Your task to perform on an android device: Show me popular videos on Youtube Image 0: 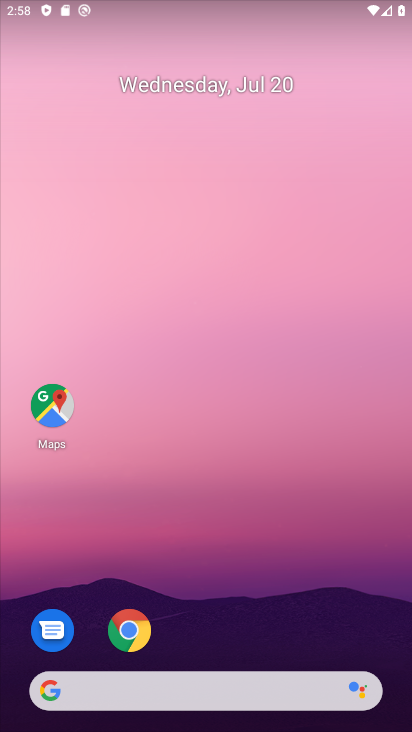
Step 0: press home button
Your task to perform on an android device: Show me popular videos on Youtube Image 1: 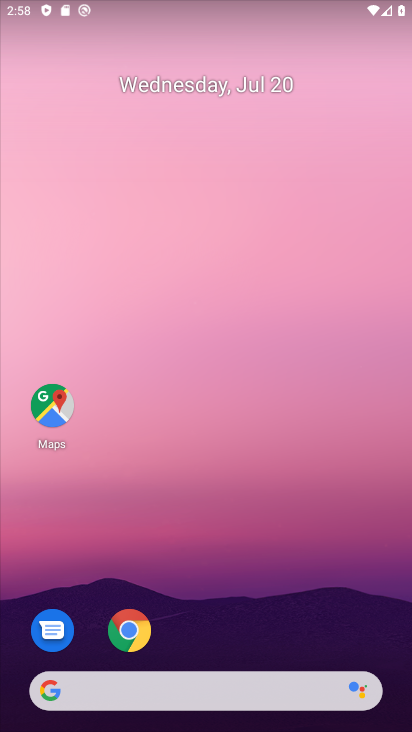
Step 1: drag from (244, 641) to (184, 102)
Your task to perform on an android device: Show me popular videos on Youtube Image 2: 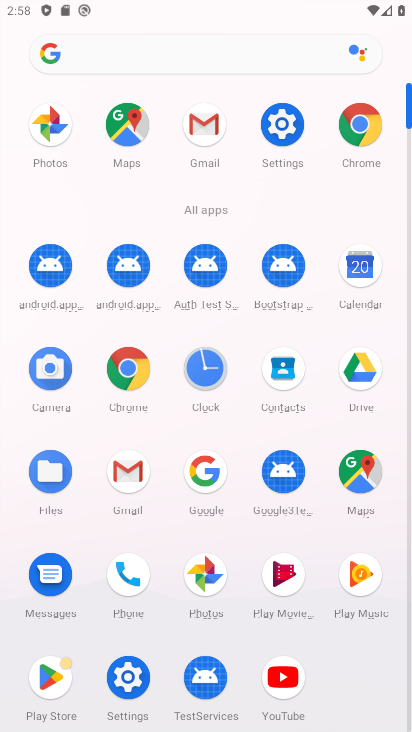
Step 2: click (273, 670)
Your task to perform on an android device: Show me popular videos on Youtube Image 3: 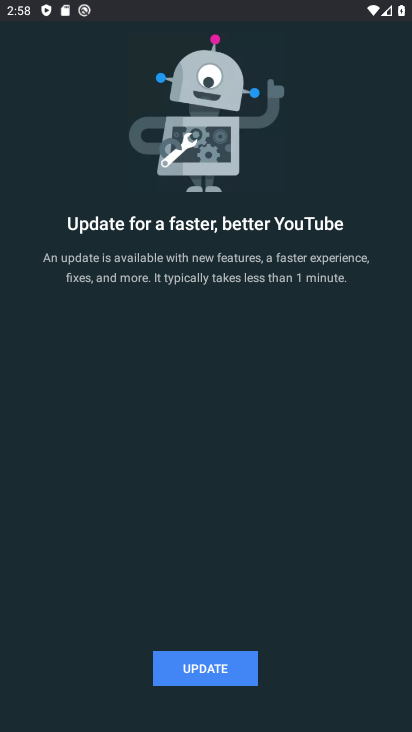
Step 3: click (225, 670)
Your task to perform on an android device: Show me popular videos on Youtube Image 4: 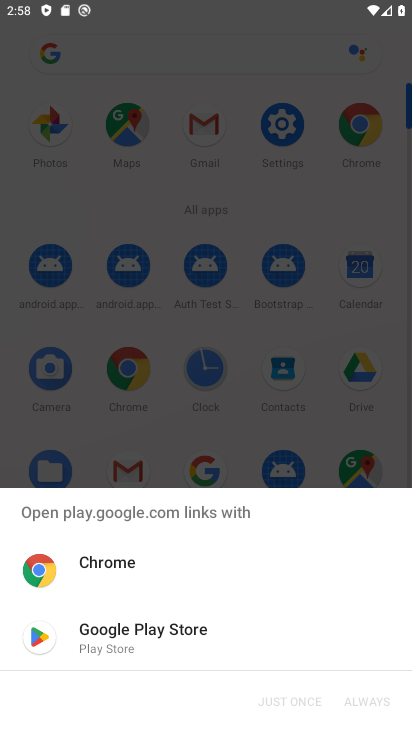
Step 4: click (101, 634)
Your task to perform on an android device: Show me popular videos on Youtube Image 5: 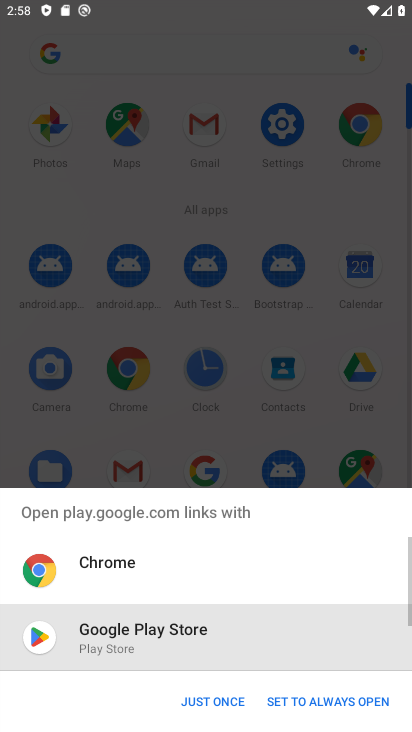
Step 5: click (214, 701)
Your task to perform on an android device: Show me popular videos on Youtube Image 6: 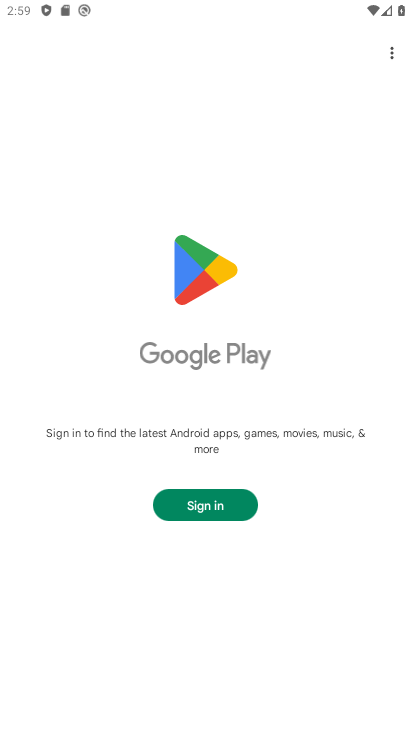
Step 6: click (171, 509)
Your task to perform on an android device: Show me popular videos on Youtube Image 7: 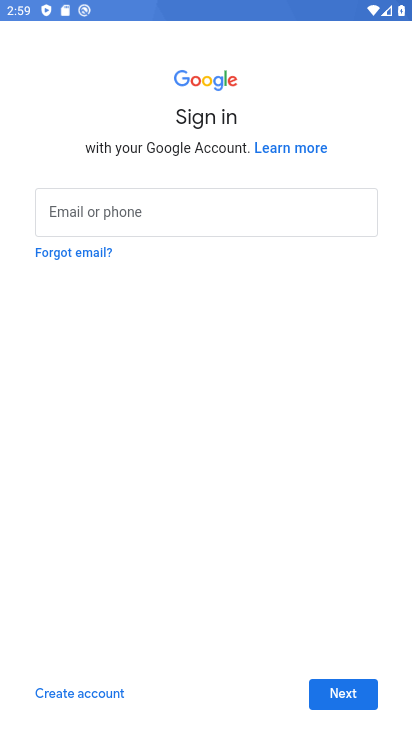
Step 7: task complete